Your task to perform on an android device: Go to Yahoo.com Image 0: 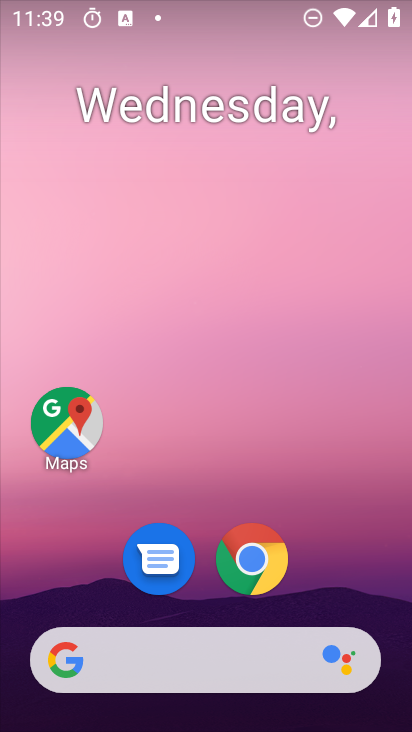
Step 0: drag from (221, 635) to (275, 131)
Your task to perform on an android device: Go to Yahoo.com Image 1: 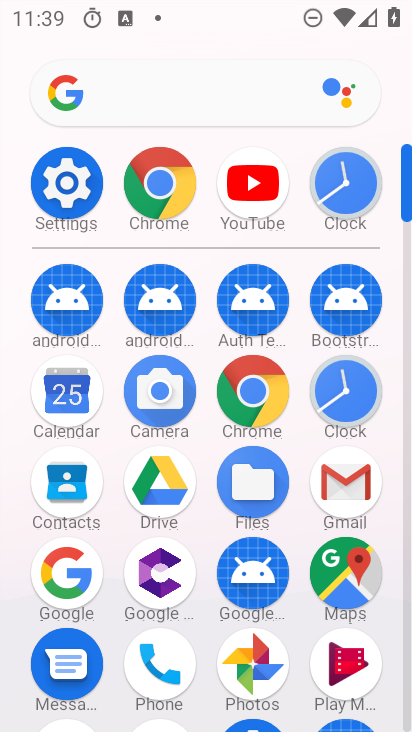
Step 1: click (153, 195)
Your task to perform on an android device: Go to Yahoo.com Image 2: 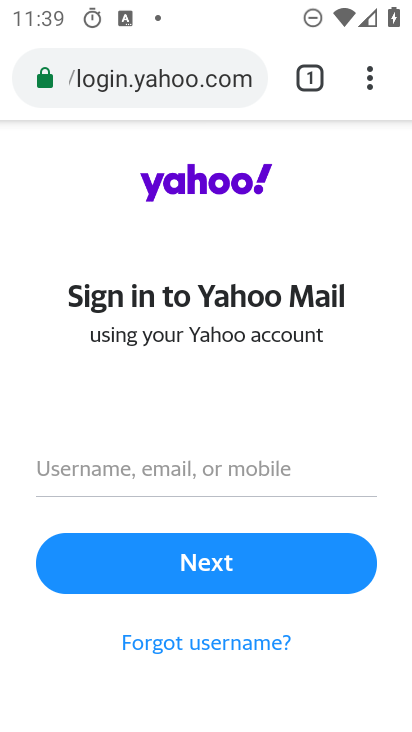
Step 2: task complete